Your task to perform on an android device: turn on airplane mode Image 0: 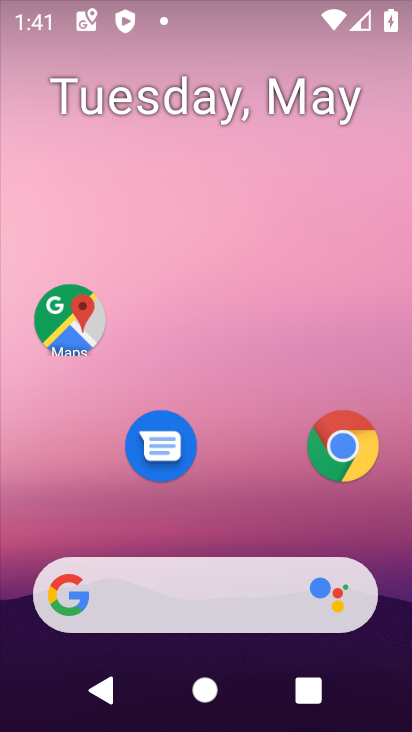
Step 0: drag from (222, 531) to (168, 52)
Your task to perform on an android device: turn on airplane mode Image 1: 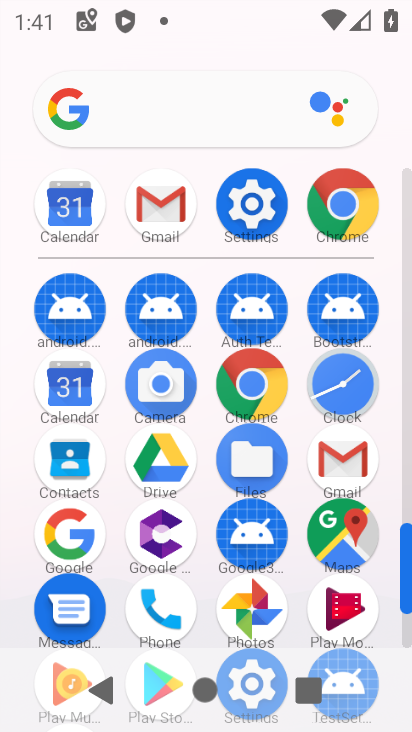
Step 1: click (234, 208)
Your task to perform on an android device: turn on airplane mode Image 2: 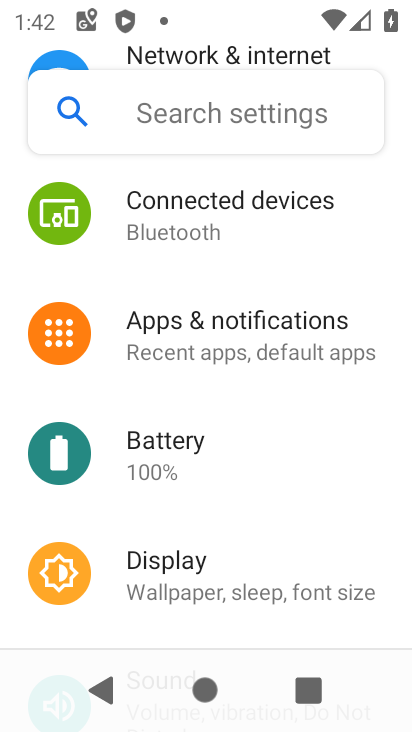
Step 2: drag from (198, 255) to (192, 587)
Your task to perform on an android device: turn on airplane mode Image 3: 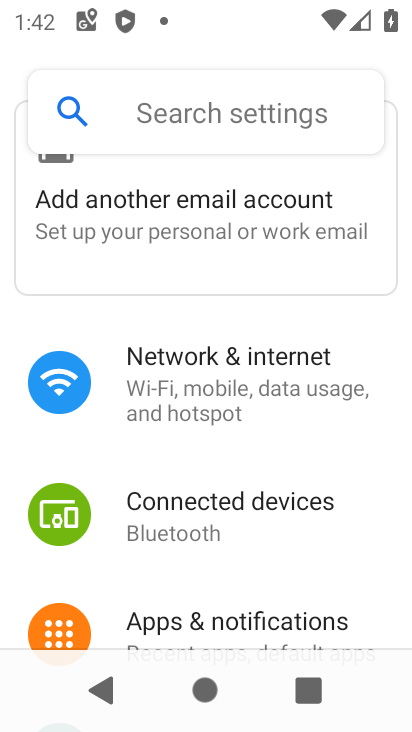
Step 3: click (194, 311)
Your task to perform on an android device: turn on airplane mode Image 4: 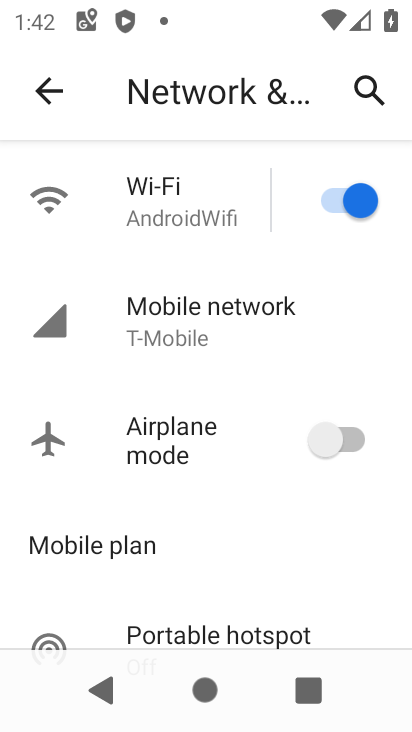
Step 4: click (340, 433)
Your task to perform on an android device: turn on airplane mode Image 5: 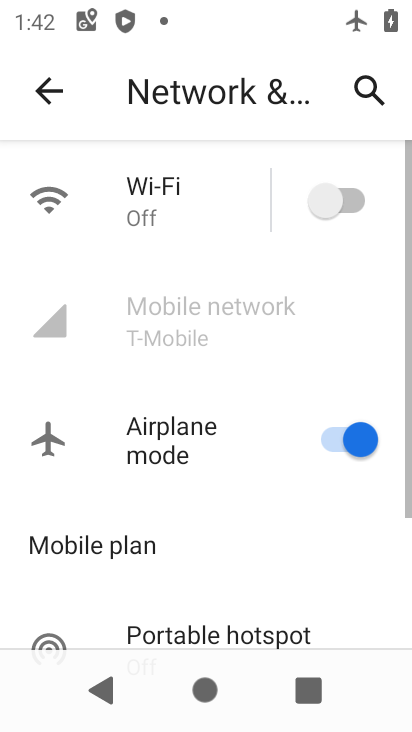
Step 5: task complete